Your task to perform on an android device: Go to wifi settings Image 0: 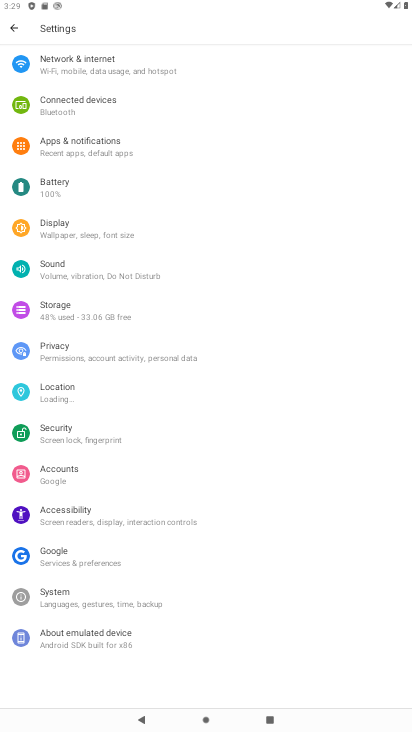
Step 0: click (122, 68)
Your task to perform on an android device: Go to wifi settings Image 1: 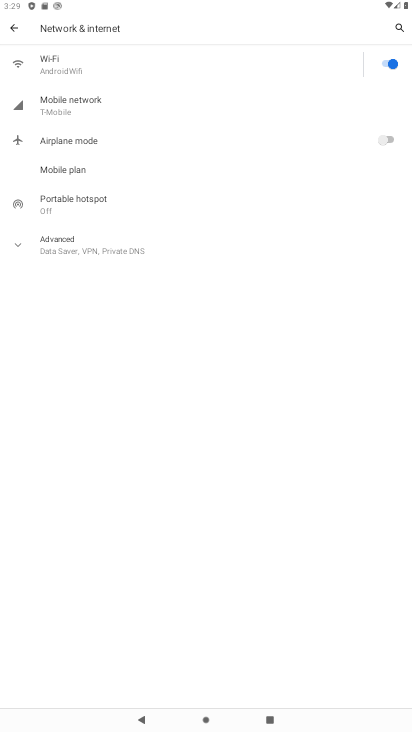
Step 1: click (122, 68)
Your task to perform on an android device: Go to wifi settings Image 2: 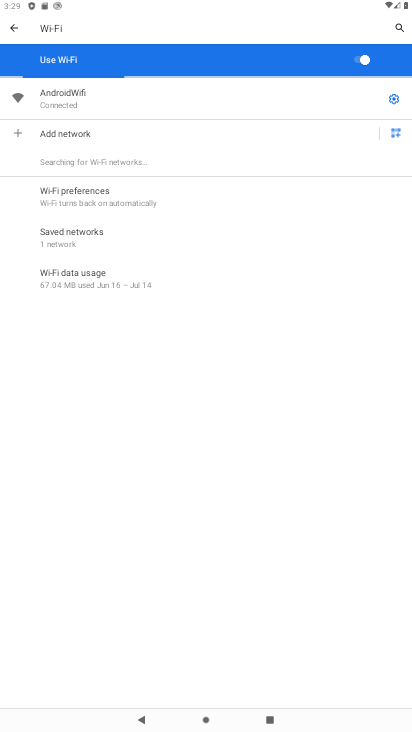
Step 2: task complete